Your task to perform on an android device: Show me popular videos on Youtube Image 0: 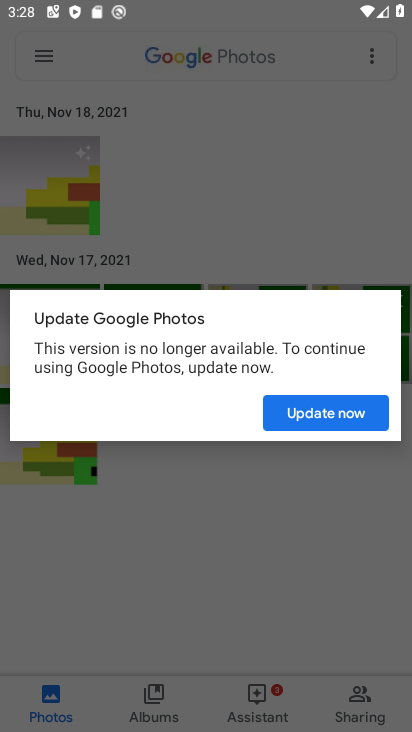
Step 0: press home button
Your task to perform on an android device: Show me popular videos on Youtube Image 1: 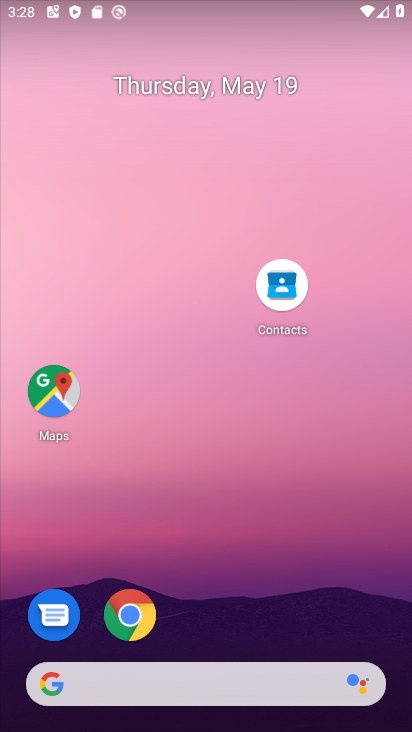
Step 1: drag from (202, 589) to (262, 198)
Your task to perform on an android device: Show me popular videos on Youtube Image 2: 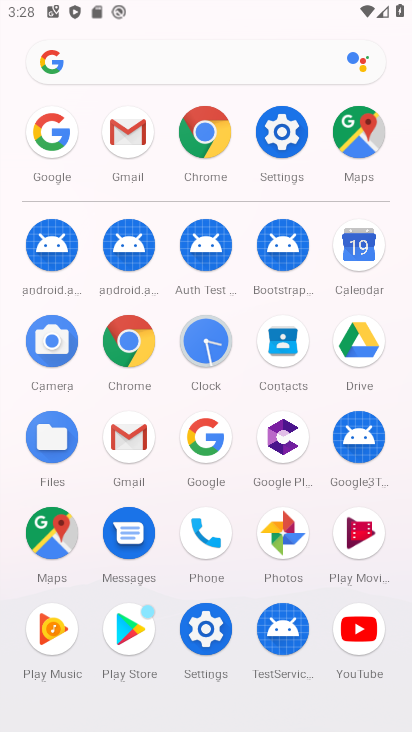
Step 2: drag from (269, 570) to (307, 286)
Your task to perform on an android device: Show me popular videos on Youtube Image 3: 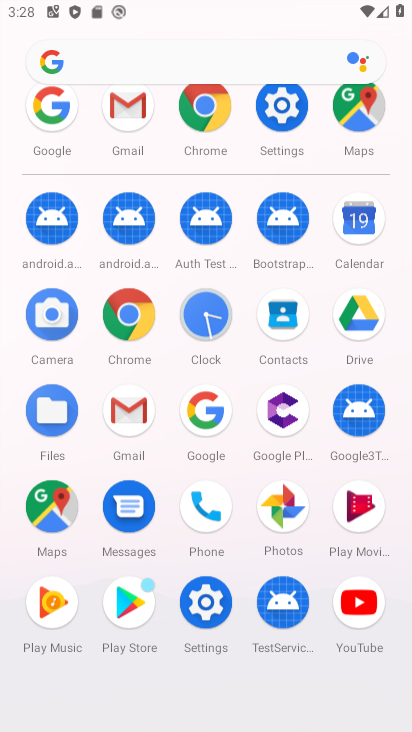
Step 3: click (326, 223)
Your task to perform on an android device: Show me popular videos on Youtube Image 4: 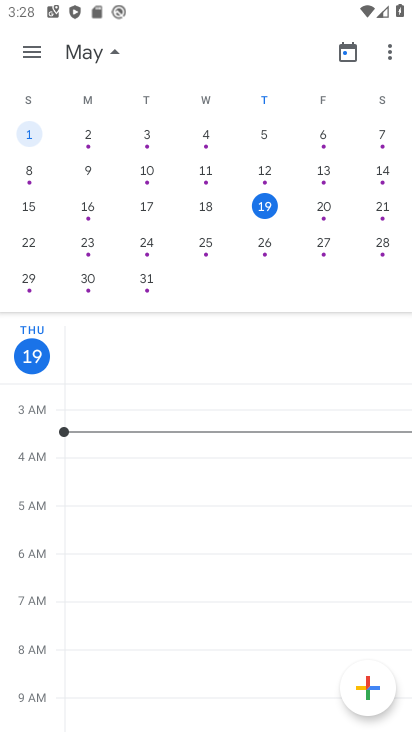
Step 4: press back button
Your task to perform on an android device: Show me popular videos on Youtube Image 5: 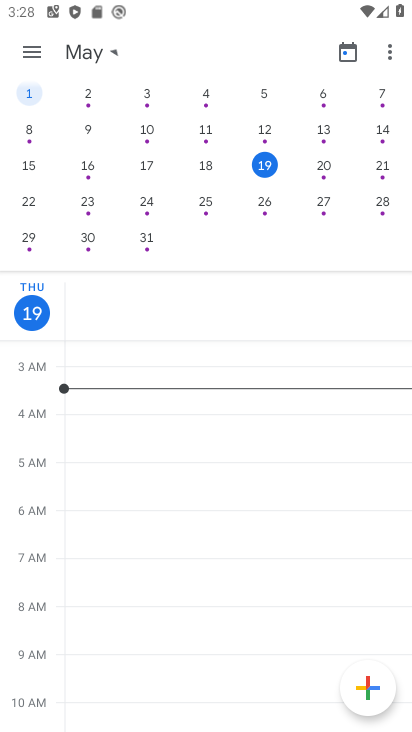
Step 5: press back button
Your task to perform on an android device: Show me popular videos on Youtube Image 6: 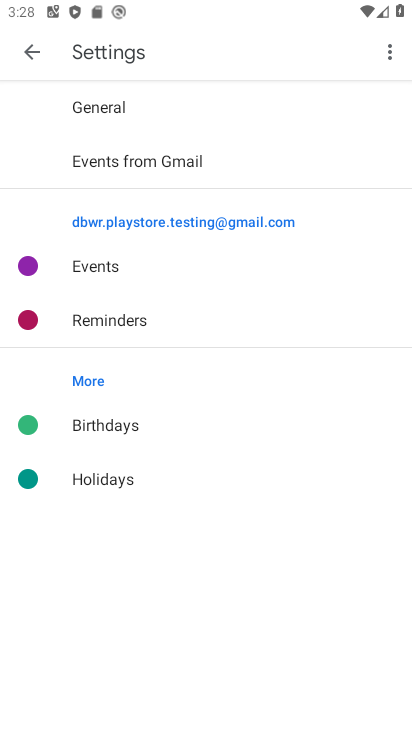
Step 6: press back button
Your task to perform on an android device: Show me popular videos on Youtube Image 7: 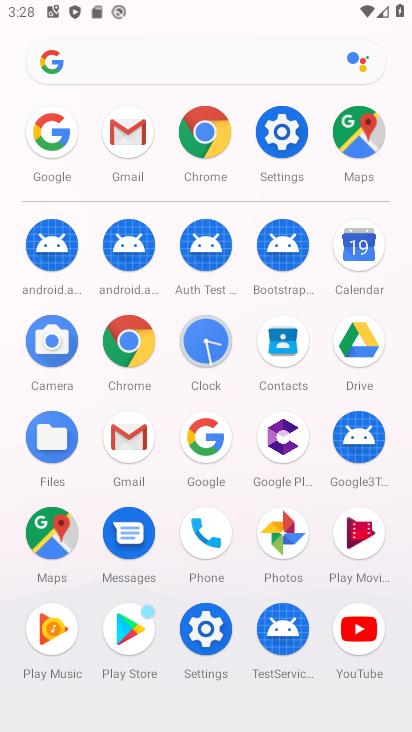
Step 7: click (368, 633)
Your task to perform on an android device: Show me popular videos on Youtube Image 8: 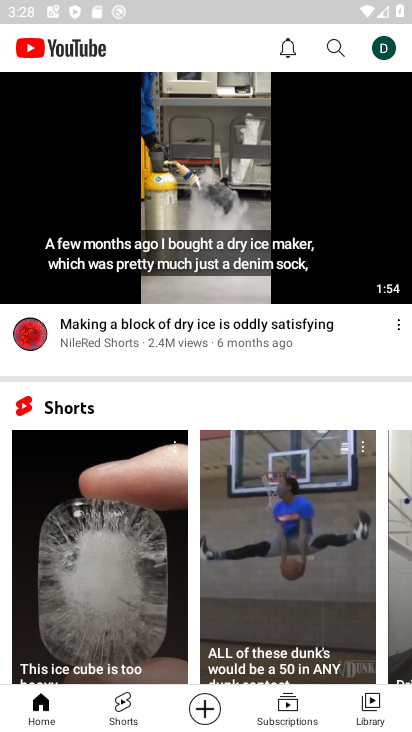
Step 8: task complete